Your task to perform on an android device: turn off airplane mode Image 0: 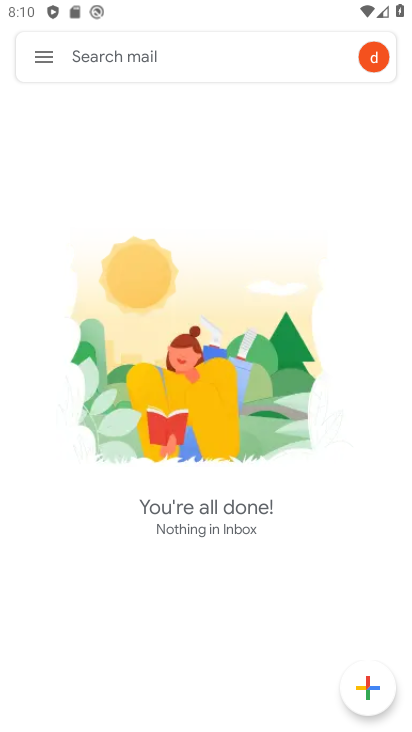
Step 0: press home button
Your task to perform on an android device: turn off airplane mode Image 1: 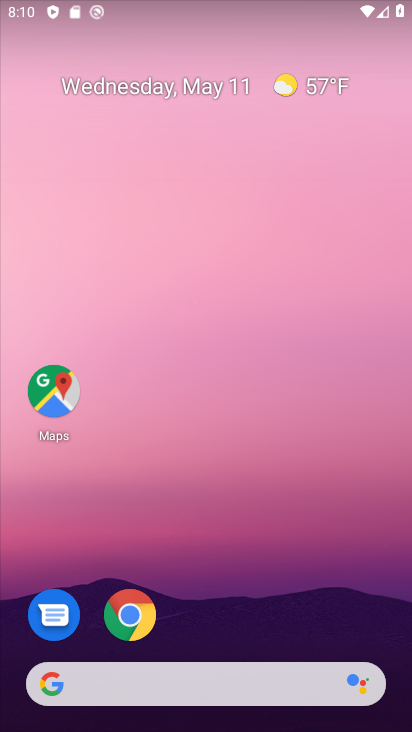
Step 1: drag from (285, 568) to (295, 0)
Your task to perform on an android device: turn off airplane mode Image 2: 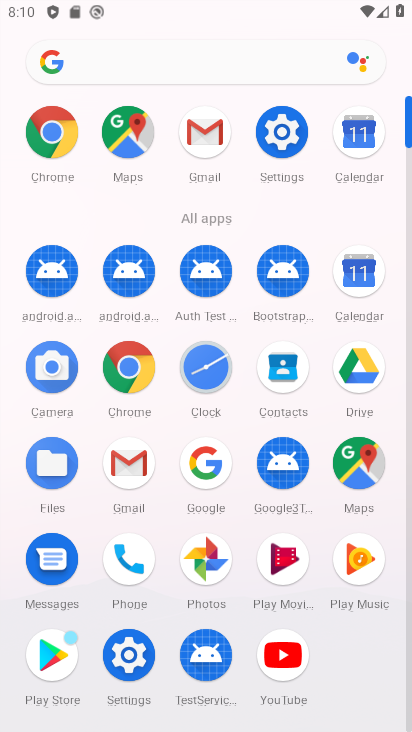
Step 2: click (272, 152)
Your task to perform on an android device: turn off airplane mode Image 3: 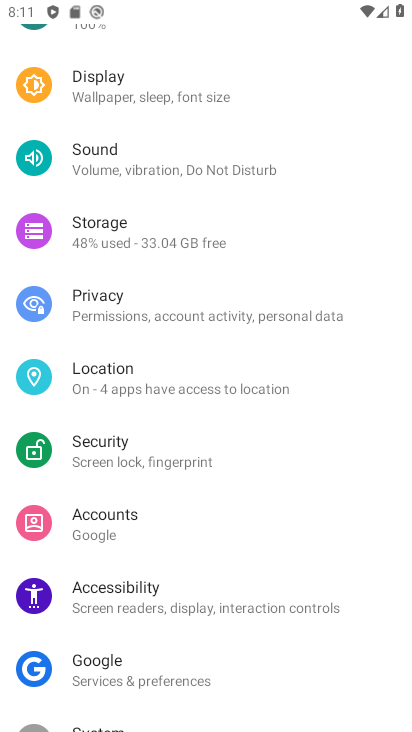
Step 3: drag from (270, 148) to (194, 666)
Your task to perform on an android device: turn off airplane mode Image 4: 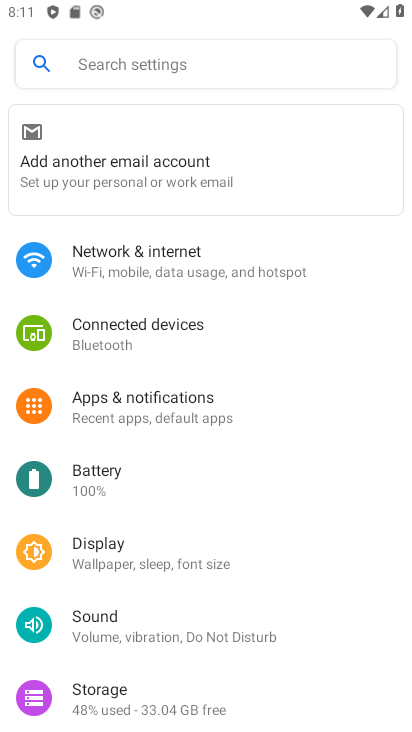
Step 4: click (168, 233)
Your task to perform on an android device: turn off airplane mode Image 5: 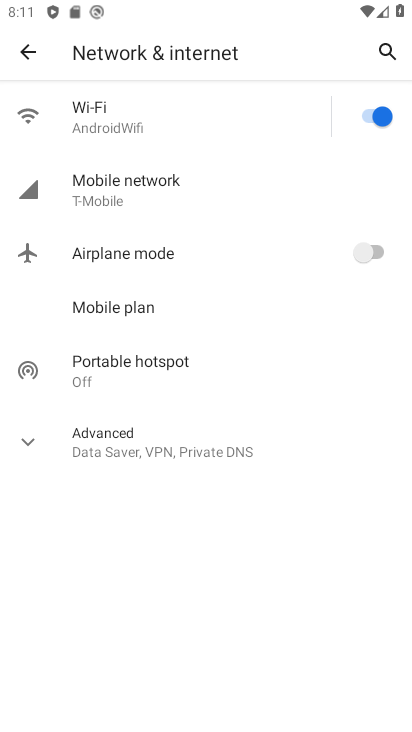
Step 5: task complete